Your task to perform on an android device: Show me popular games on the Play Store Image 0: 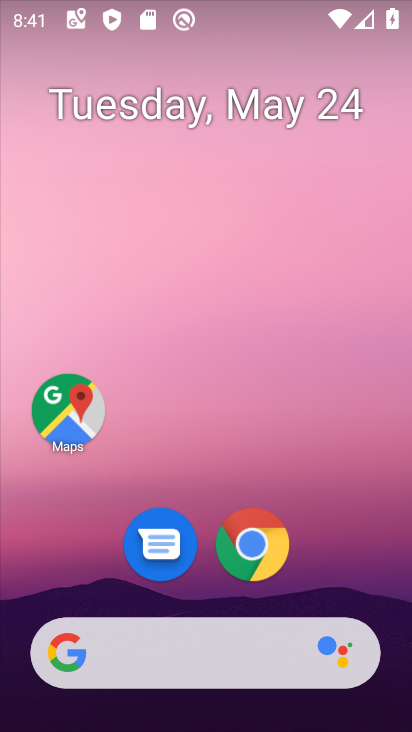
Step 0: drag from (398, 636) to (293, 126)
Your task to perform on an android device: Show me popular games on the Play Store Image 1: 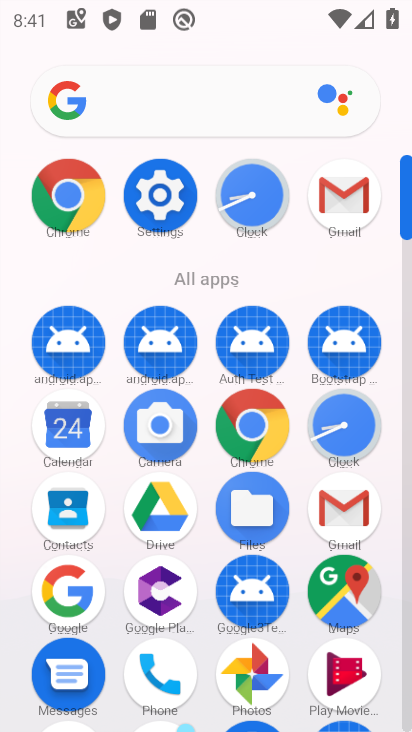
Step 1: click (407, 683)
Your task to perform on an android device: Show me popular games on the Play Store Image 2: 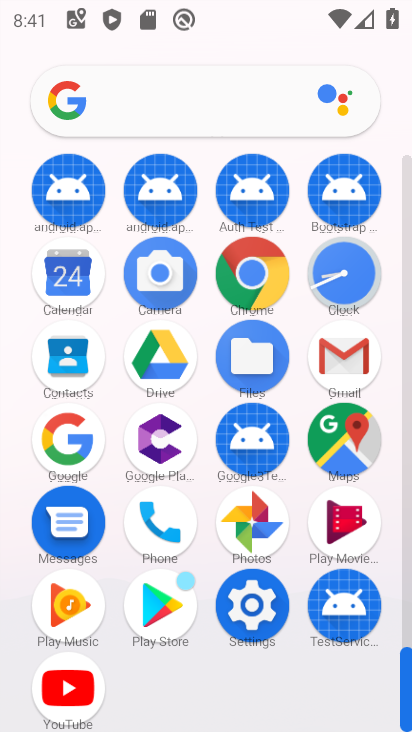
Step 2: click (161, 612)
Your task to perform on an android device: Show me popular games on the Play Store Image 3: 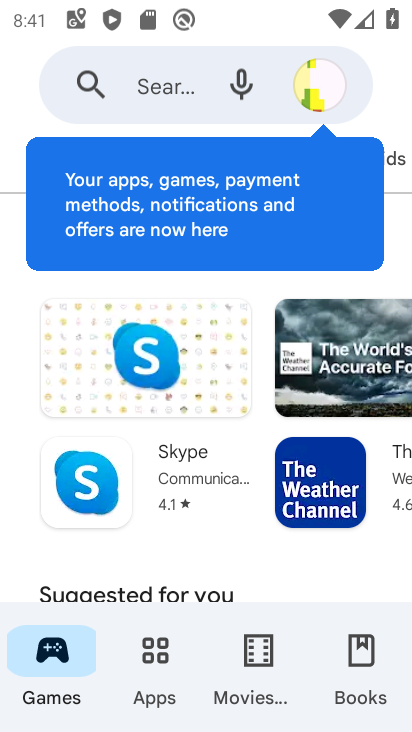
Step 3: click (264, 570)
Your task to perform on an android device: Show me popular games on the Play Store Image 4: 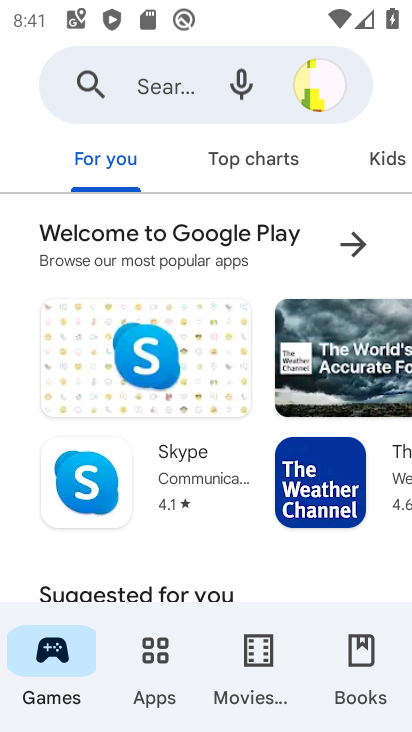
Step 4: click (210, 242)
Your task to perform on an android device: Show me popular games on the Play Store Image 5: 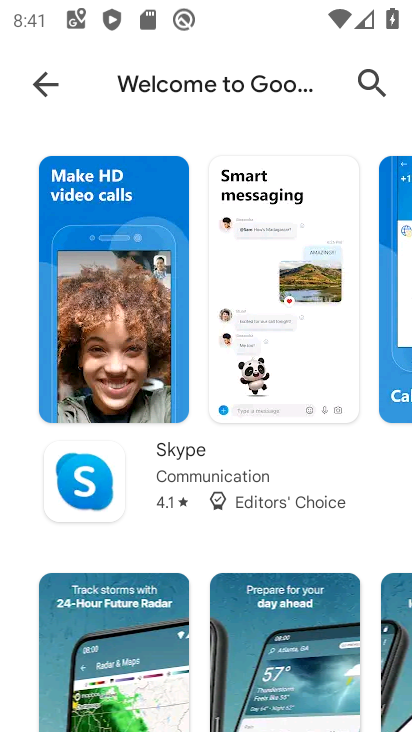
Step 5: task complete